Your task to perform on an android device: Open the Play Movies app and select the watchlist tab. Image 0: 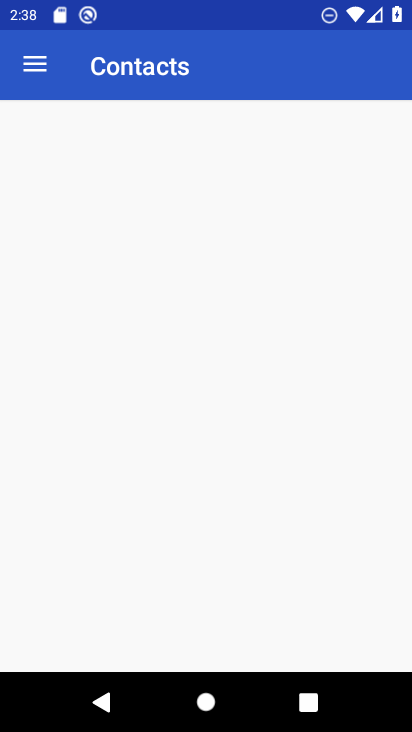
Step 0: drag from (270, 626) to (254, 176)
Your task to perform on an android device: Open the Play Movies app and select the watchlist tab. Image 1: 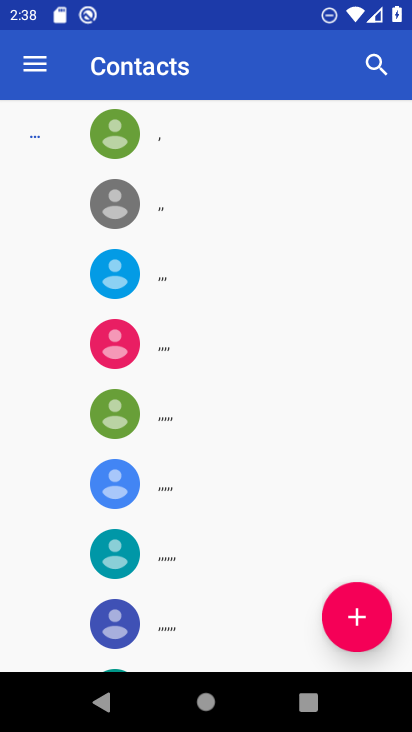
Step 1: press back button
Your task to perform on an android device: Open the Play Movies app and select the watchlist tab. Image 2: 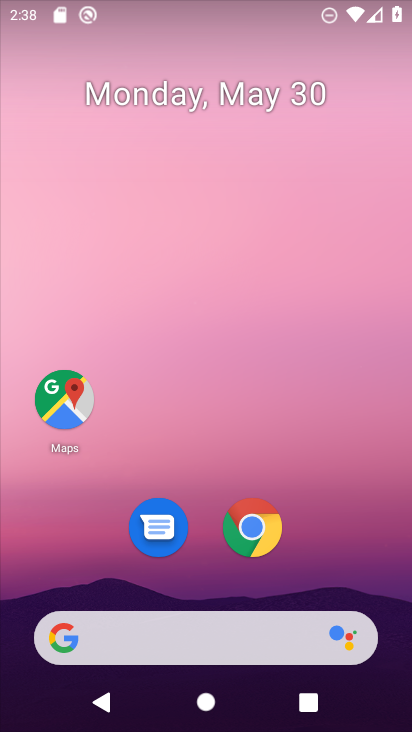
Step 2: drag from (249, 619) to (228, 227)
Your task to perform on an android device: Open the Play Movies app and select the watchlist tab. Image 3: 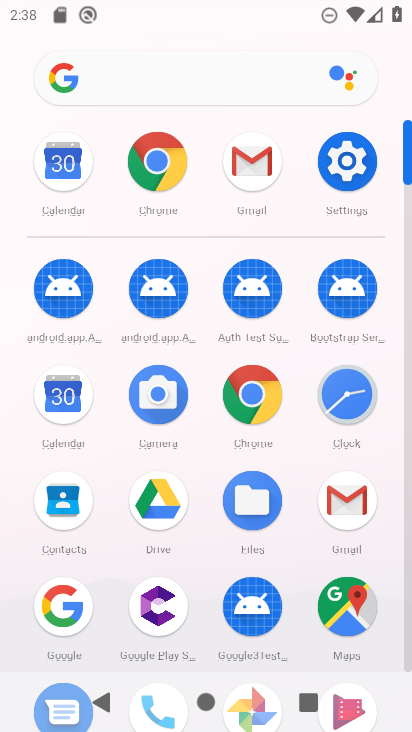
Step 3: drag from (308, 616) to (290, 276)
Your task to perform on an android device: Open the Play Movies app and select the watchlist tab. Image 4: 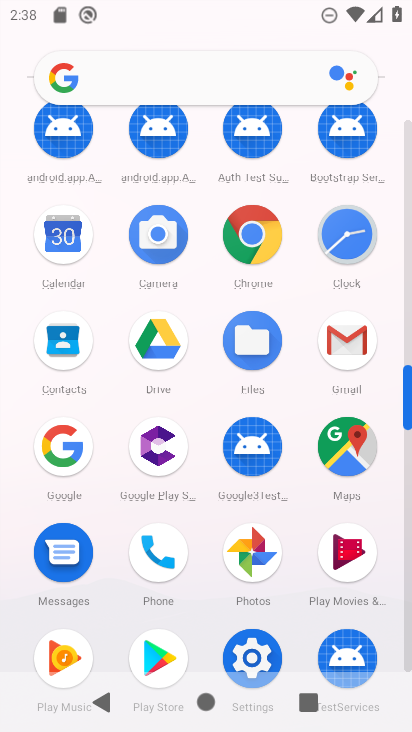
Step 4: drag from (322, 480) to (346, 561)
Your task to perform on an android device: Open the Play Movies app and select the watchlist tab. Image 5: 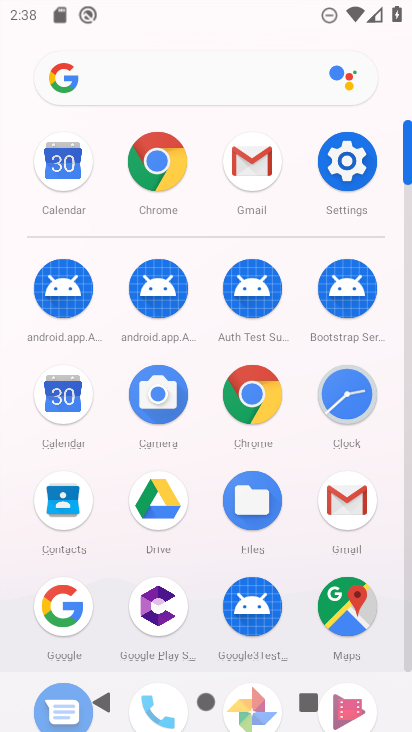
Step 5: drag from (295, 572) to (295, 227)
Your task to perform on an android device: Open the Play Movies app and select the watchlist tab. Image 6: 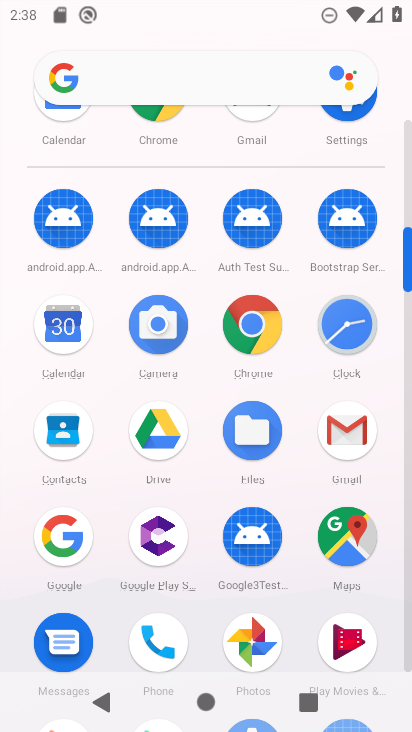
Step 6: drag from (302, 365) to (315, 255)
Your task to perform on an android device: Open the Play Movies app and select the watchlist tab. Image 7: 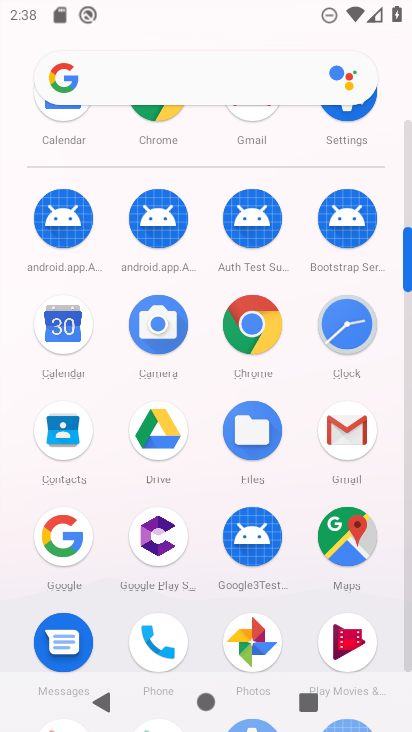
Step 7: click (347, 647)
Your task to perform on an android device: Open the Play Movies app and select the watchlist tab. Image 8: 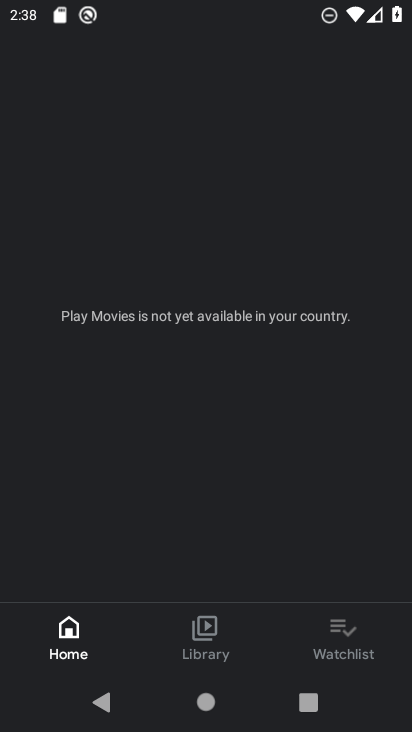
Step 8: click (354, 634)
Your task to perform on an android device: Open the Play Movies app and select the watchlist tab. Image 9: 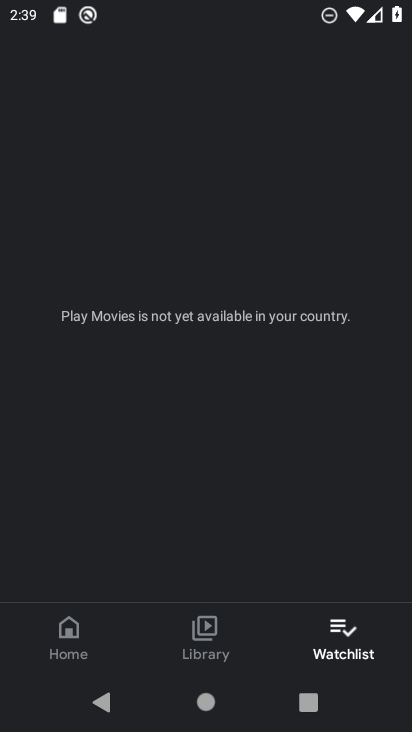
Step 9: click (337, 625)
Your task to perform on an android device: Open the Play Movies app and select the watchlist tab. Image 10: 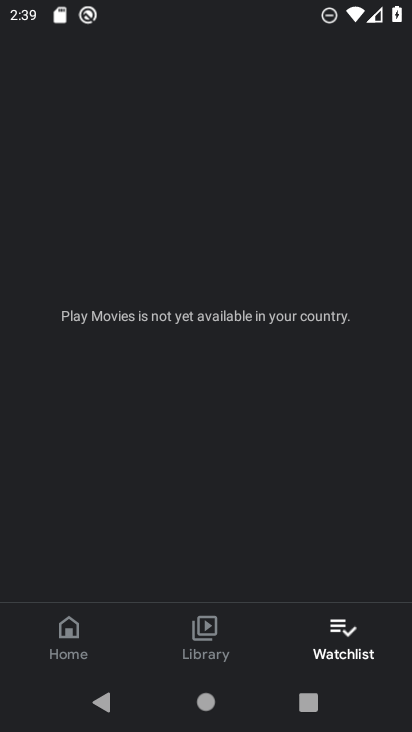
Step 10: task complete